Your task to perform on an android device: Show me popular games on the Play Store Image 0: 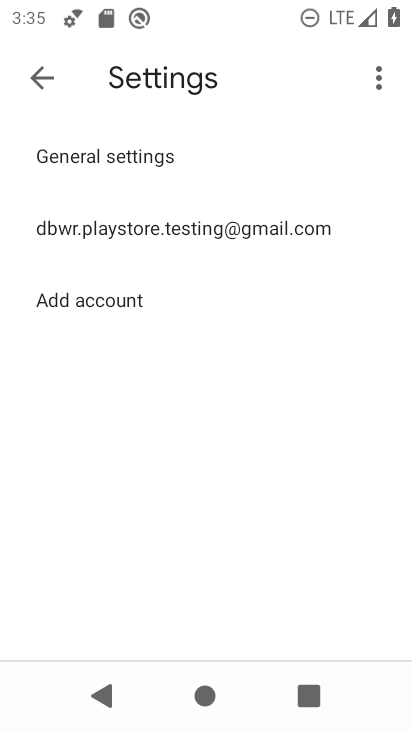
Step 0: press home button
Your task to perform on an android device: Show me popular games on the Play Store Image 1: 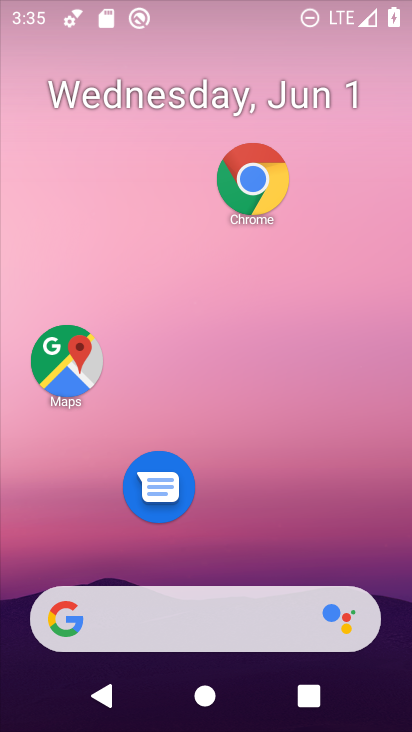
Step 1: drag from (214, 604) to (230, 259)
Your task to perform on an android device: Show me popular games on the Play Store Image 2: 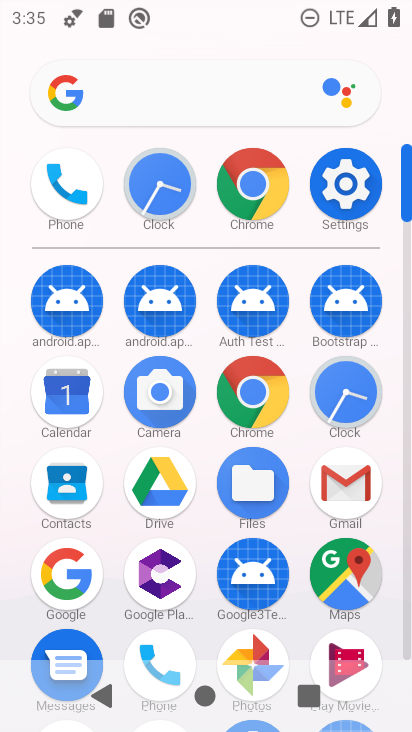
Step 2: drag from (202, 601) to (194, 379)
Your task to perform on an android device: Show me popular games on the Play Store Image 3: 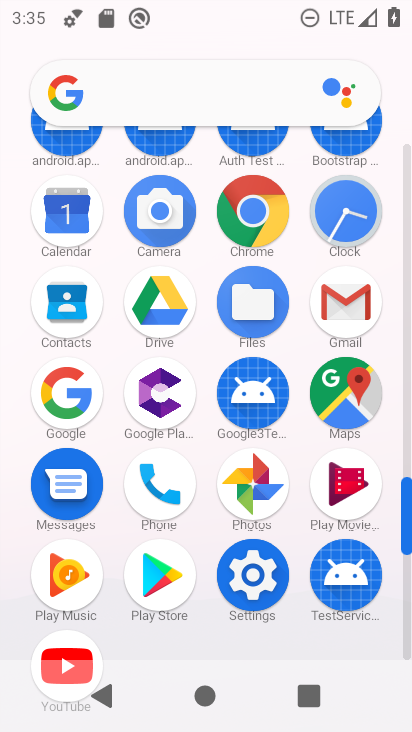
Step 3: click (150, 573)
Your task to perform on an android device: Show me popular games on the Play Store Image 4: 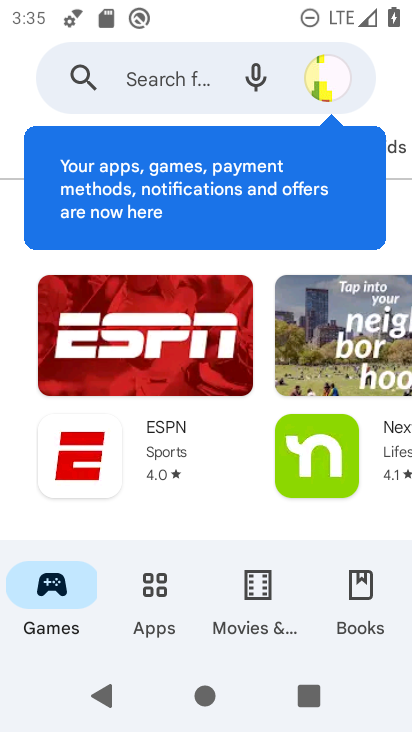
Step 4: click (156, 568)
Your task to perform on an android device: Show me popular games on the Play Store Image 5: 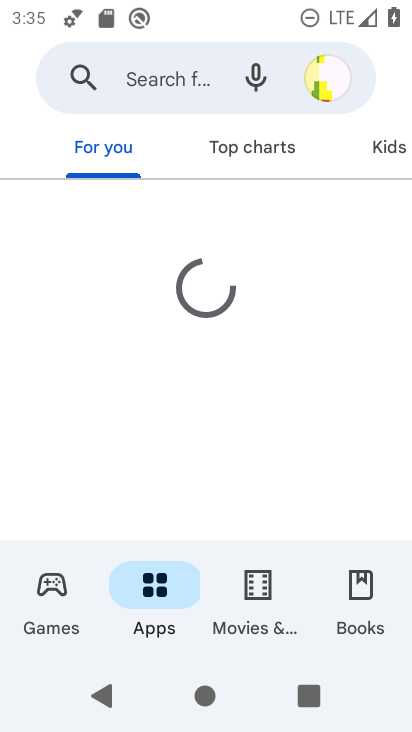
Step 5: click (45, 575)
Your task to perform on an android device: Show me popular games on the Play Store Image 6: 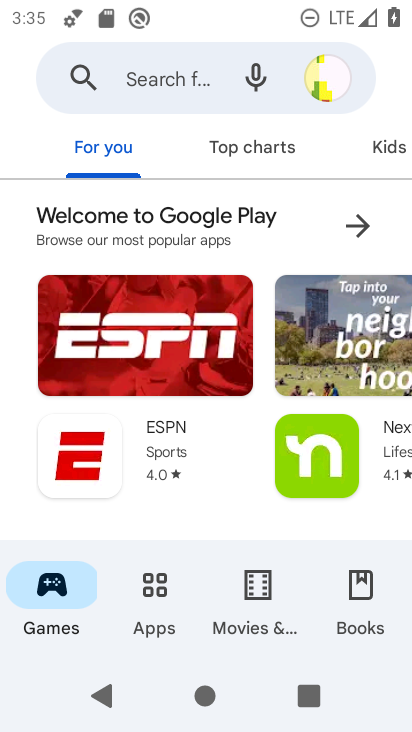
Step 6: task complete